Your task to perform on an android device: see sites visited before in the chrome app Image 0: 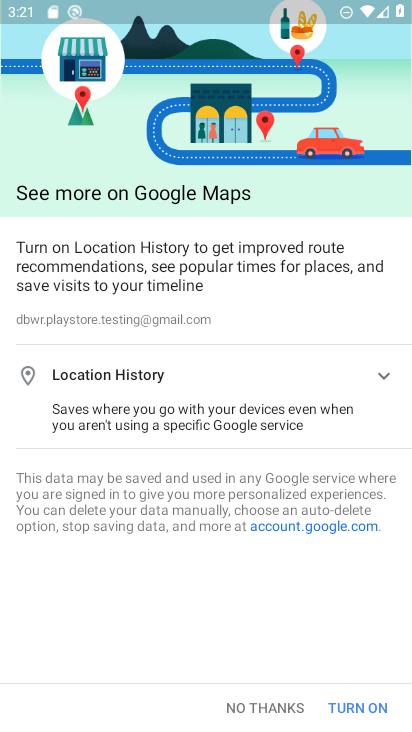
Step 0: press home button
Your task to perform on an android device: see sites visited before in the chrome app Image 1: 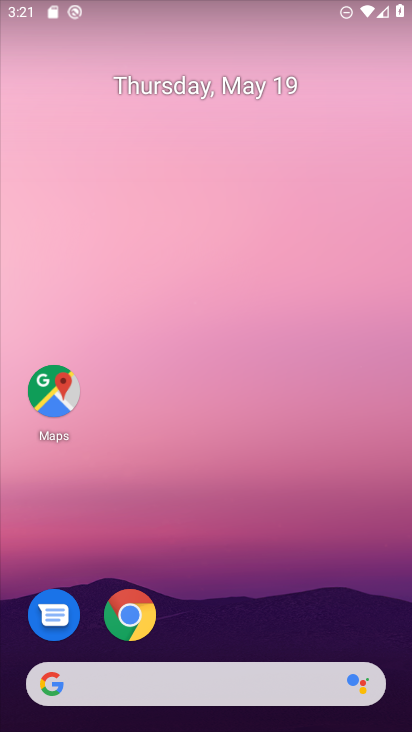
Step 1: click (148, 624)
Your task to perform on an android device: see sites visited before in the chrome app Image 2: 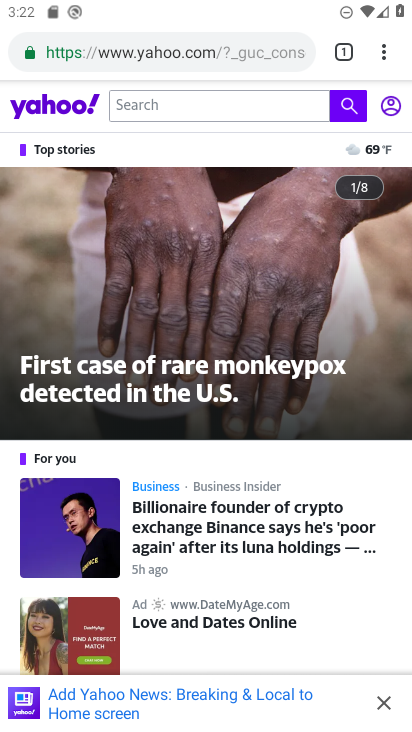
Step 2: click (388, 58)
Your task to perform on an android device: see sites visited before in the chrome app Image 3: 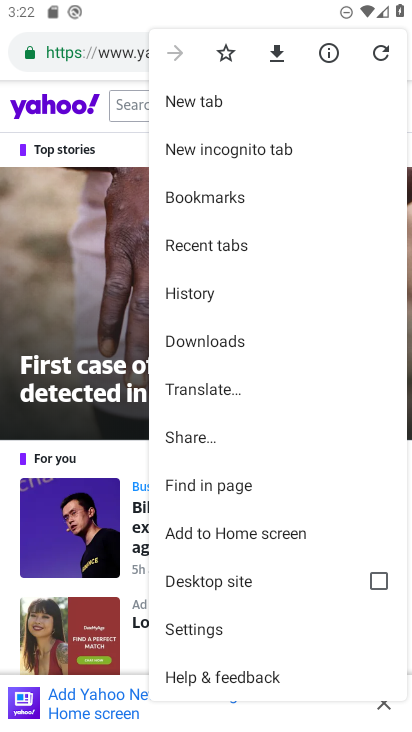
Step 3: click (232, 293)
Your task to perform on an android device: see sites visited before in the chrome app Image 4: 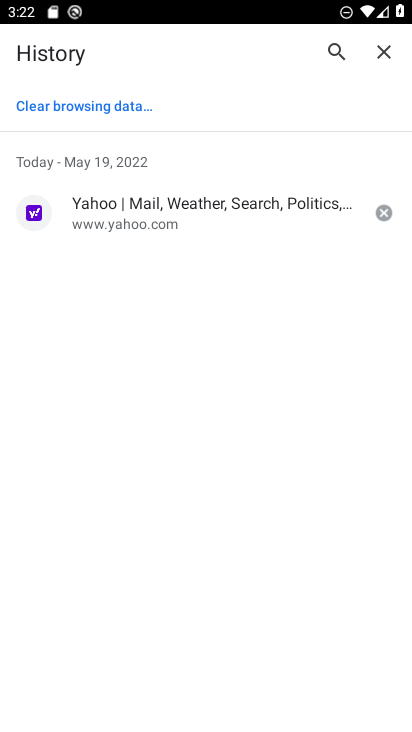
Step 4: task complete